Your task to perform on an android device: Open the web browser Image 0: 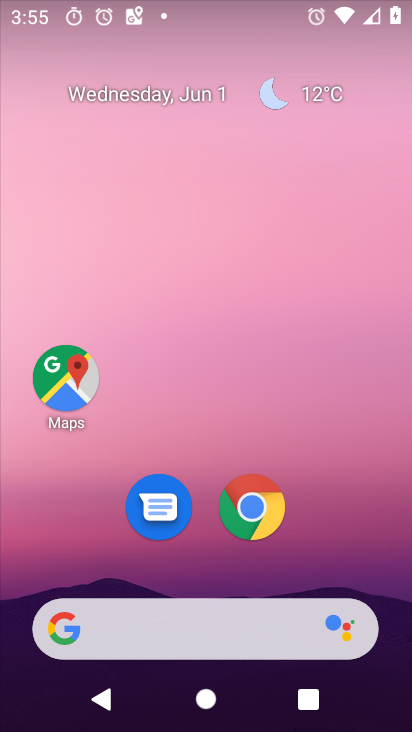
Step 0: click (262, 511)
Your task to perform on an android device: Open the web browser Image 1: 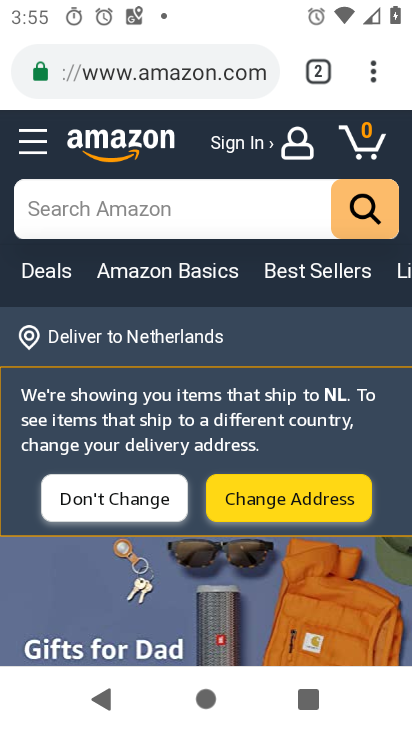
Step 1: task complete